Your task to perform on an android device: Open wifi settings Image 0: 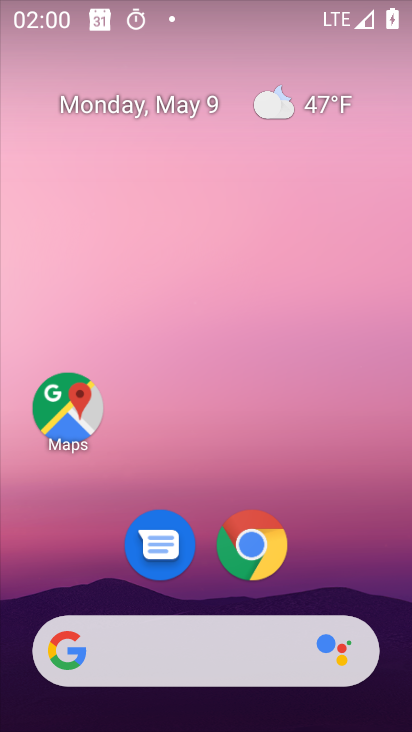
Step 0: drag from (309, 620) to (266, 32)
Your task to perform on an android device: Open wifi settings Image 1: 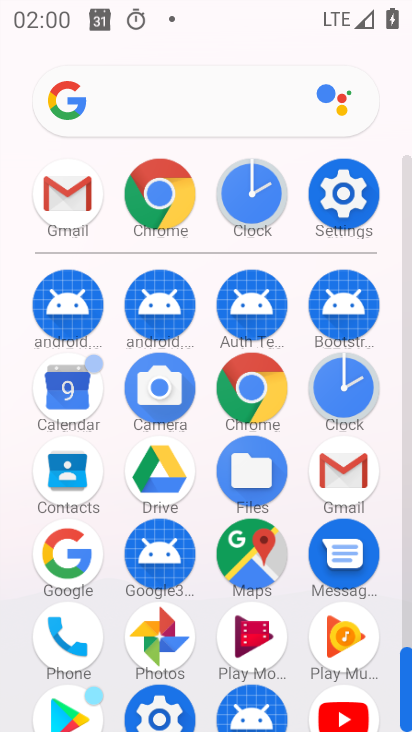
Step 1: click (241, 564)
Your task to perform on an android device: Open wifi settings Image 2: 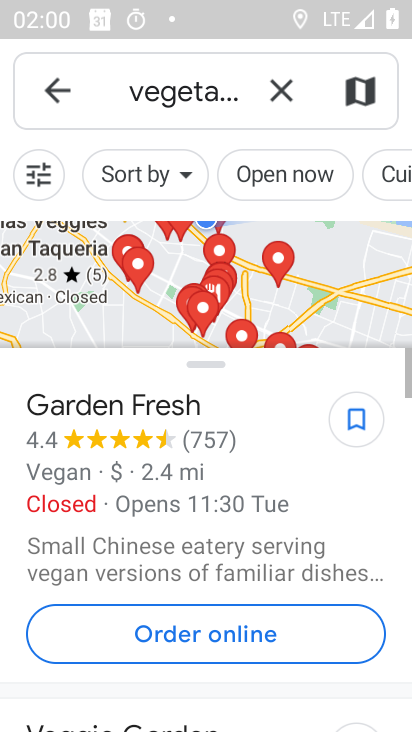
Step 2: press home button
Your task to perform on an android device: Open wifi settings Image 3: 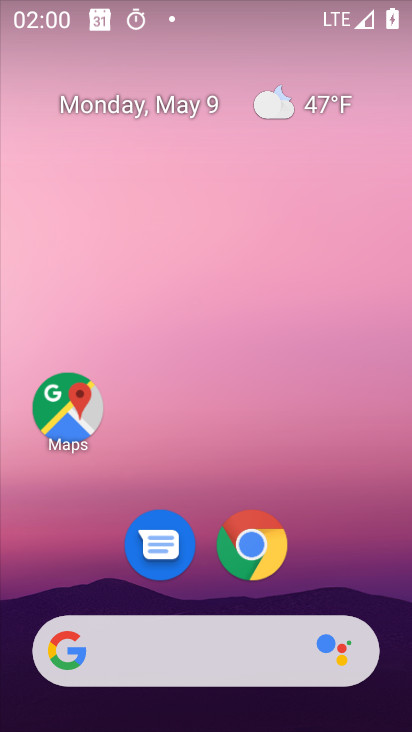
Step 3: drag from (313, 608) to (293, 3)
Your task to perform on an android device: Open wifi settings Image 4: 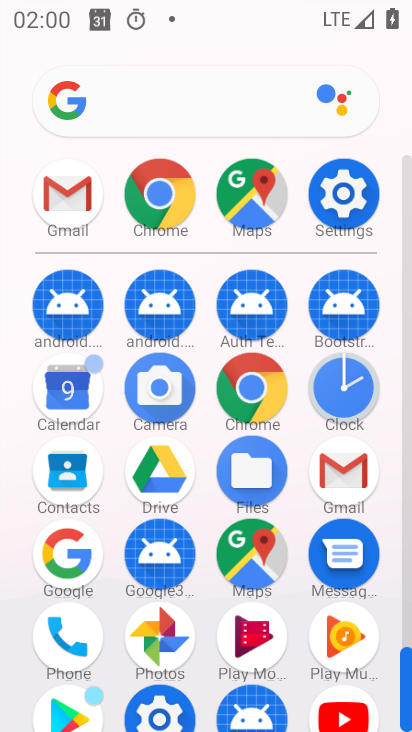
Step 4: click (353, 171)
Your task to perform on an android device: Open wifi settings Image 5: 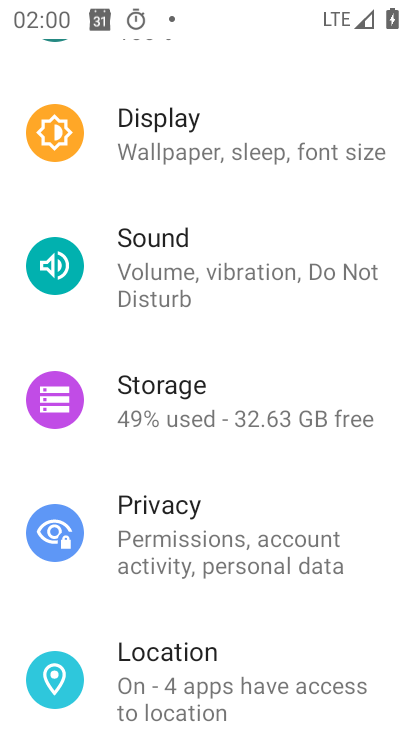
Step 5: drag from (217, 153) to (185, 730)
Your task to perform on an android device: Open wifi settings Image 6: 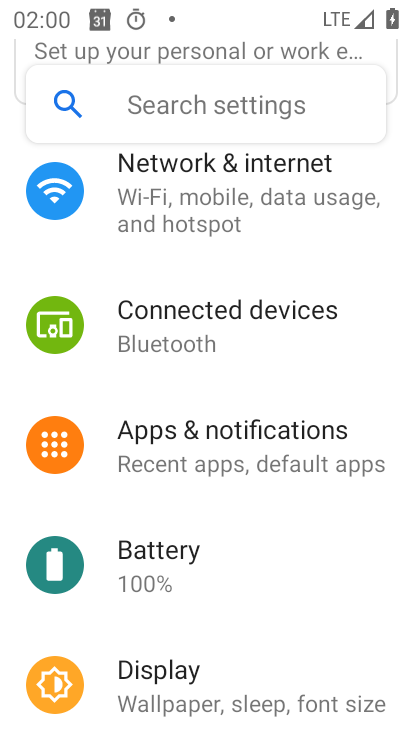
Step 6: click (246, 209)
Your task to perform on an android device: Open wifi settings Image 7: 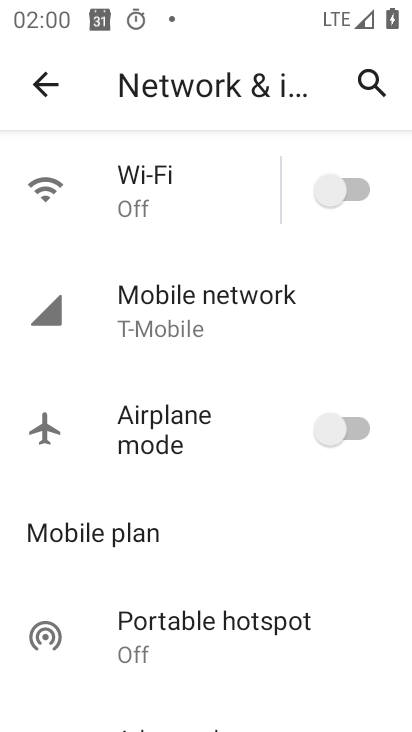
Step 7: click (206, 188)
Your task to perform on an android device: Open wifi settings Image 8: 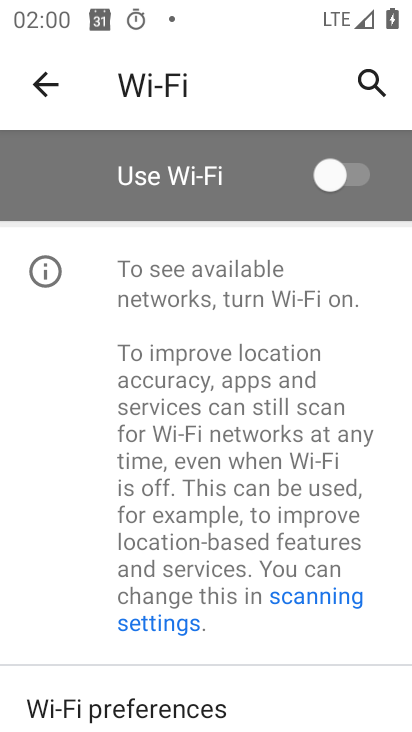
Step 8: task complete